Your task to perform on an android device: turn on the 24-hour format for clock Image 0: 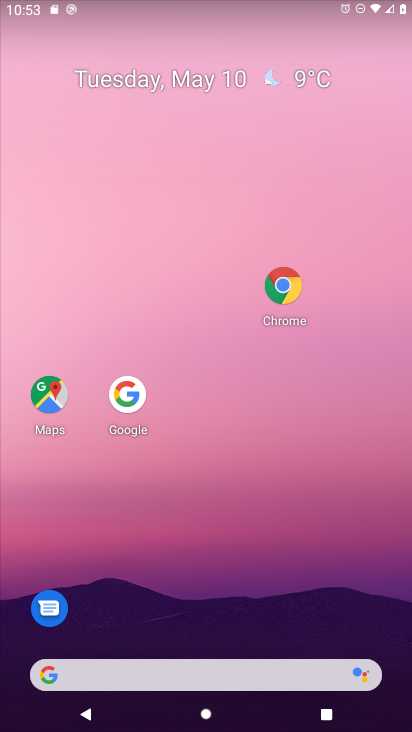
Step 0: drag from (144, 677) to (236, 226)
Your task to perform on an android device: turn on the 24-hour format for clock Image 1: 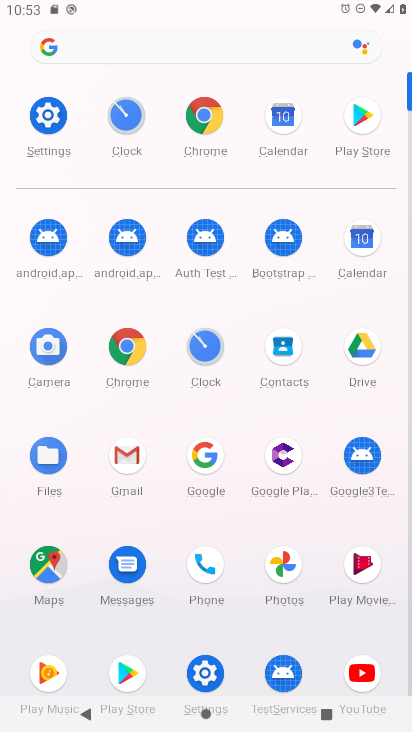
Step 1: click (198, 354)
Your task to perform on an android device: turn on the 24-hour format for clock Image 2: 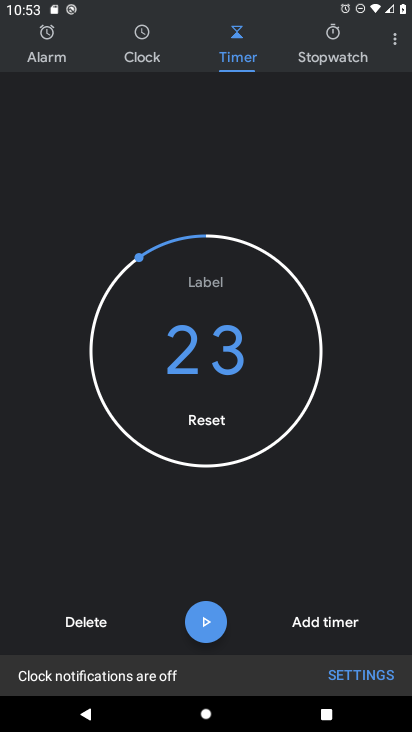
Step 2: click (394, 43)
Your task to perform on an android device: turn on the 24-hour format for clock Image 3: 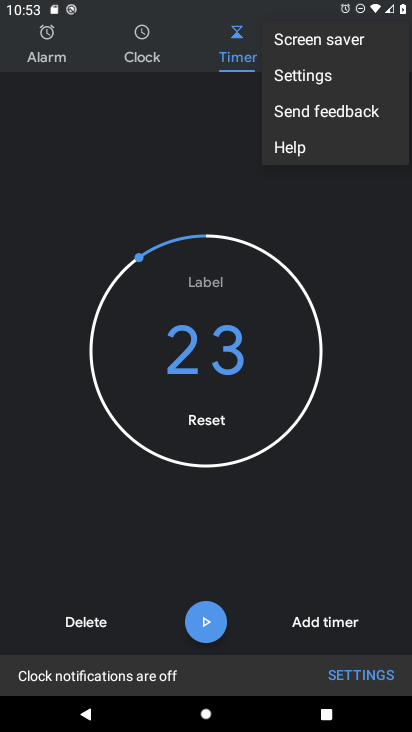
Step 3: click (296, 76)
Your task to perform on an android device: turn on the 24-hour format for clock Image 4: 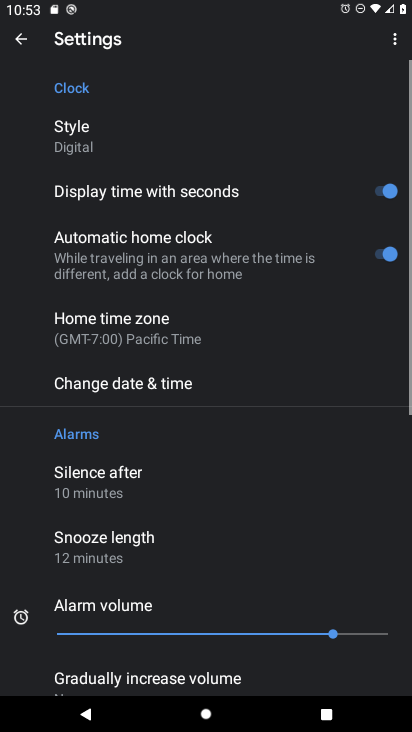
Step 4: click (160, 385)
Your task to perform on an android device: turn on the 24-hour format for clock Image 5: 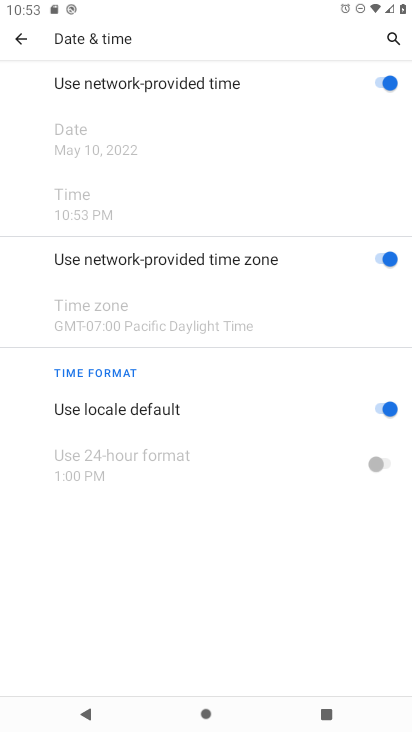
Step 5: click (377, 411)
Your task to perform on an android device: turn on the 24-hour format for clock Image 6: 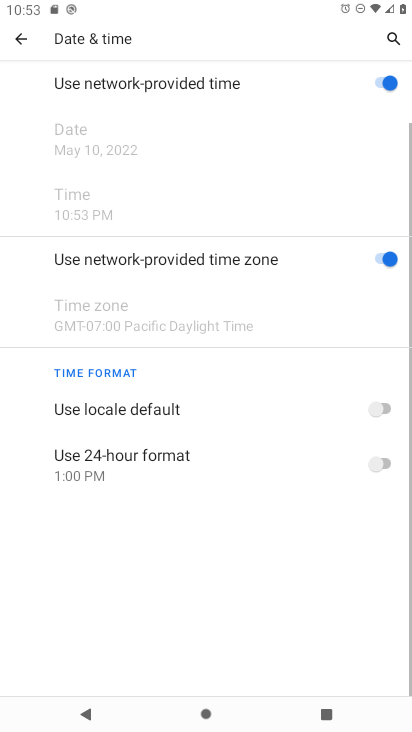
Step 6: click (387, 465)
Your task to perform on an android device: turn on the 24-hour format for clock Image 7: 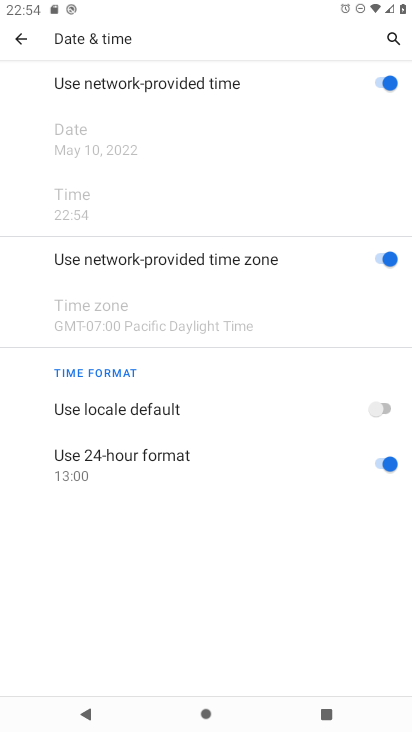
Step 7: task complete